Your task to perform on an android device: What's the weather going to be tomorrow? Image 0: 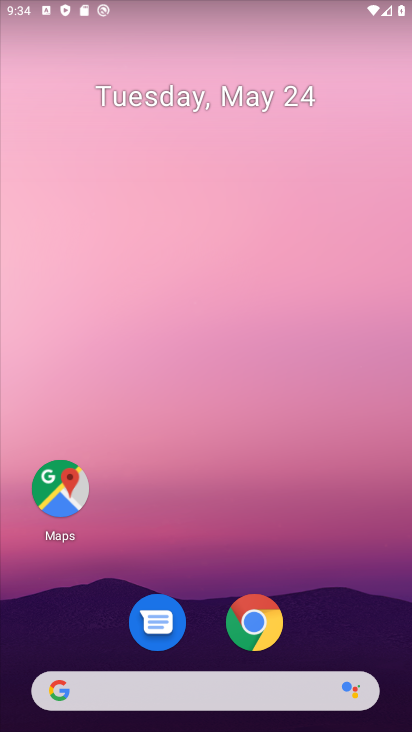
Step 0: drag from (214, 677) to (346, 10)
Your task to perform on an android device: What's the weather going to be tomorrow? Image 1: 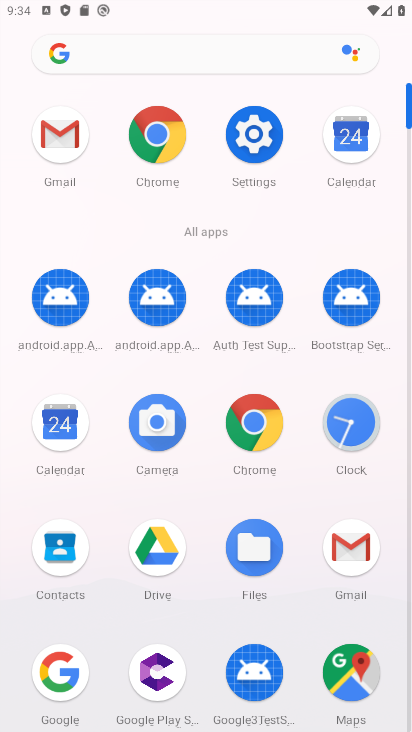
Step 1: click (149, 53)
Your task to perform on an android device: What's the weather going to be tomorrow? Image 2: 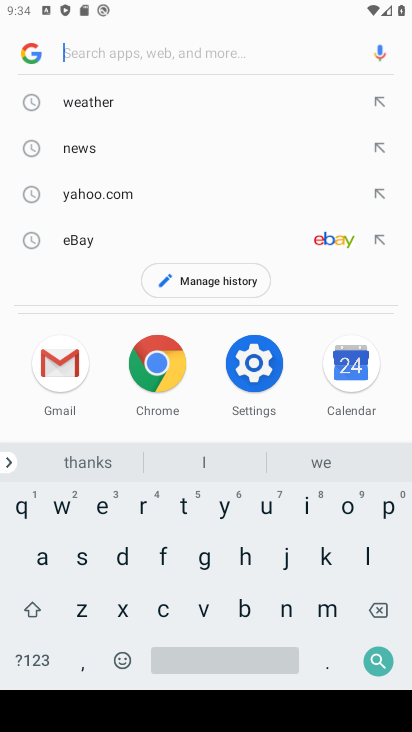
Step 2: click (99, 104)
Your task to perform on an android device: What's the weather going to be tomorrow? Image 3: 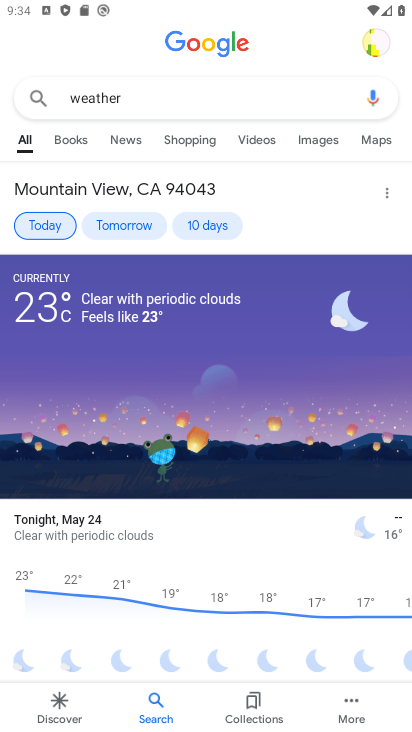
Step 3: click (101, 223)
Your task to perform on an android device: What's the weather going to be tomorrow? Image 4: 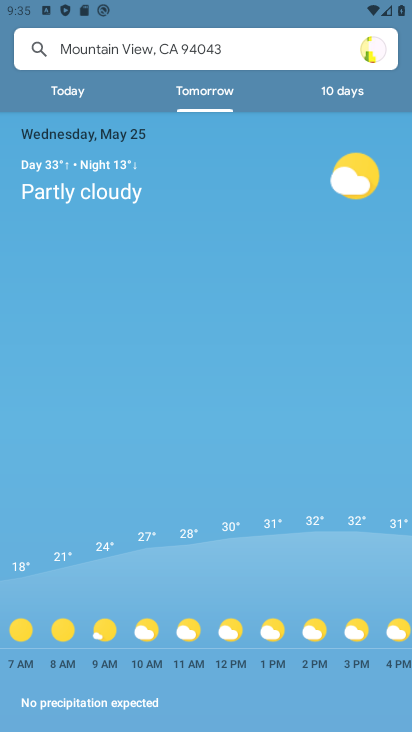
Step 4: task complete